Your task to perform on an android device: open app "Facebook Lite" (install if not already installed) Image 0: 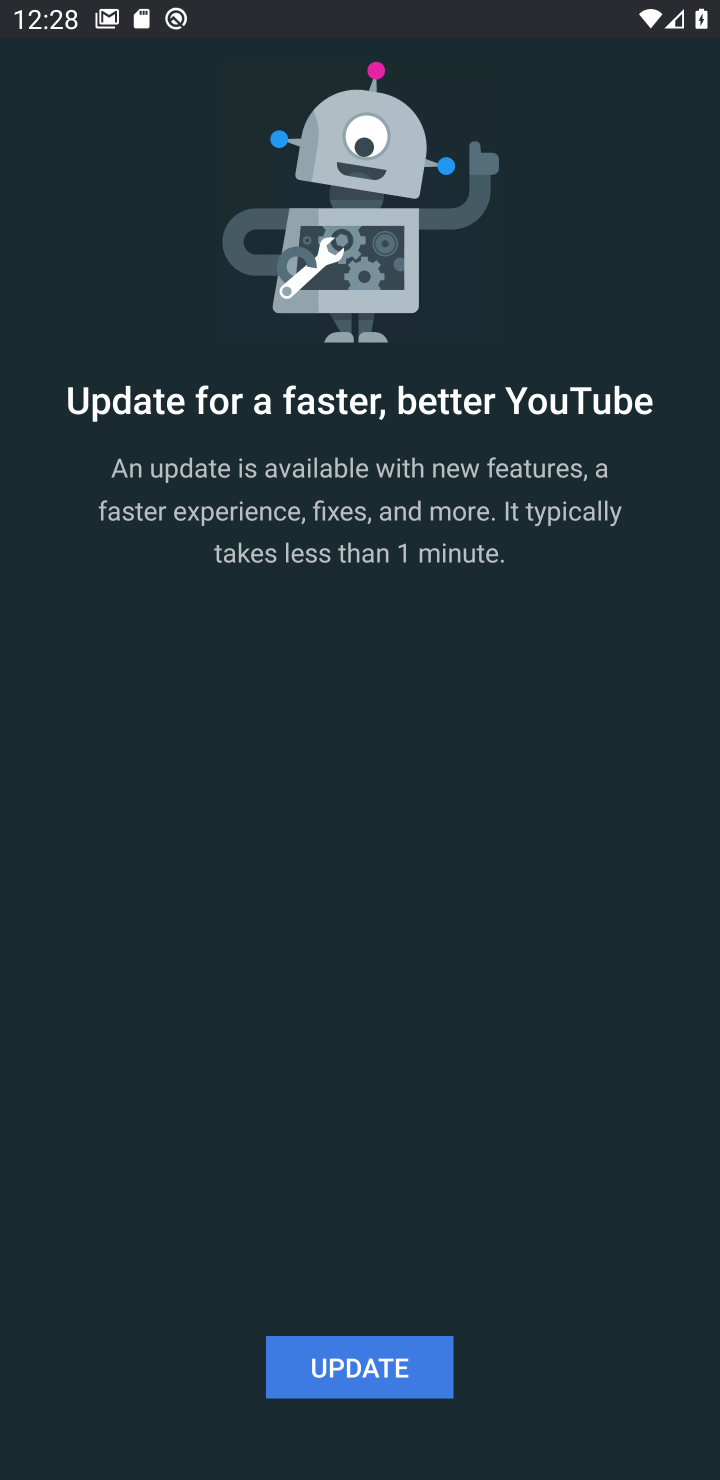
Step 0: press home button
Your task to perform on an android device: open app "Facebook Lite" (install if not already installed) Image 1: 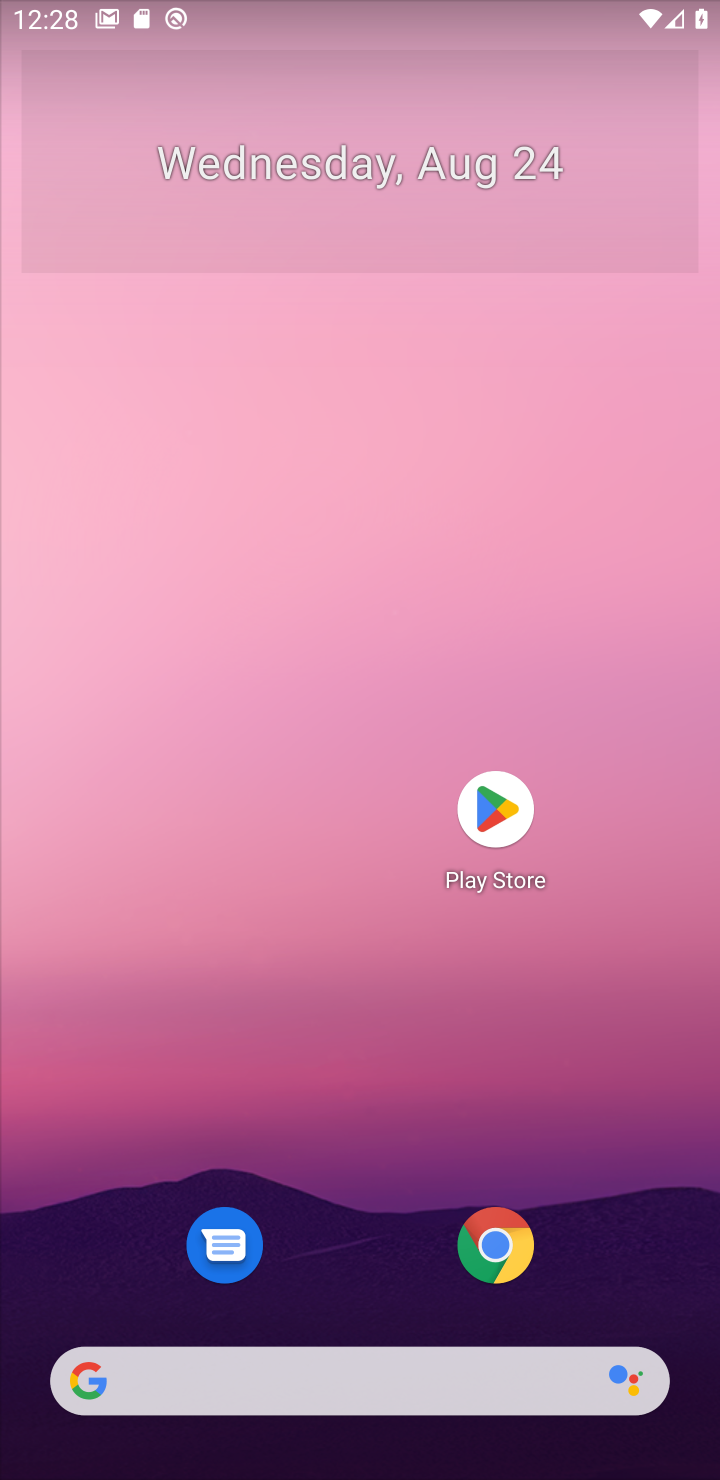
Step 1: click (492, 800)
Your task to perform on an android device: open app "Facebook Lite" (install if not already installed) Image 2: 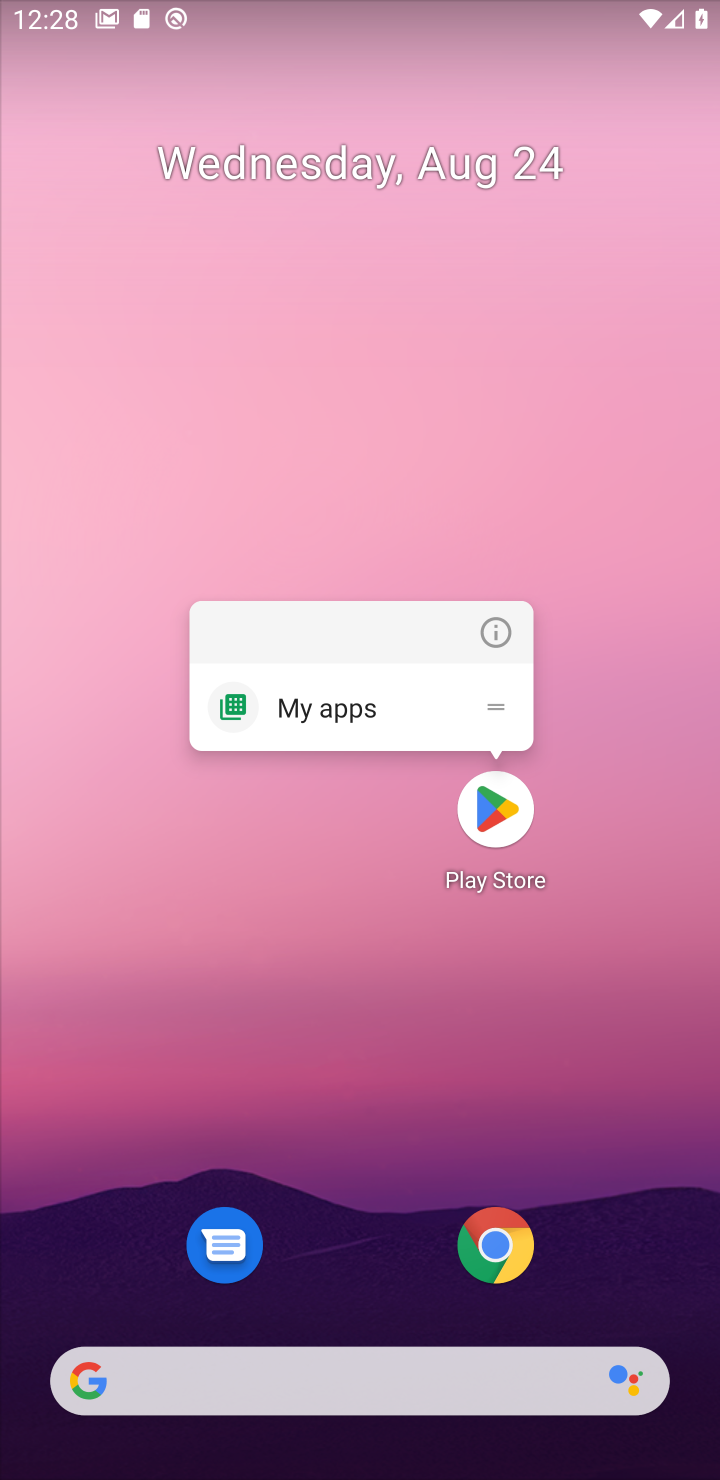
Step 2: click (490, 796)
Your task to perform on an android device: open app "Facebook Lite" (install if not already installed) Image 3: 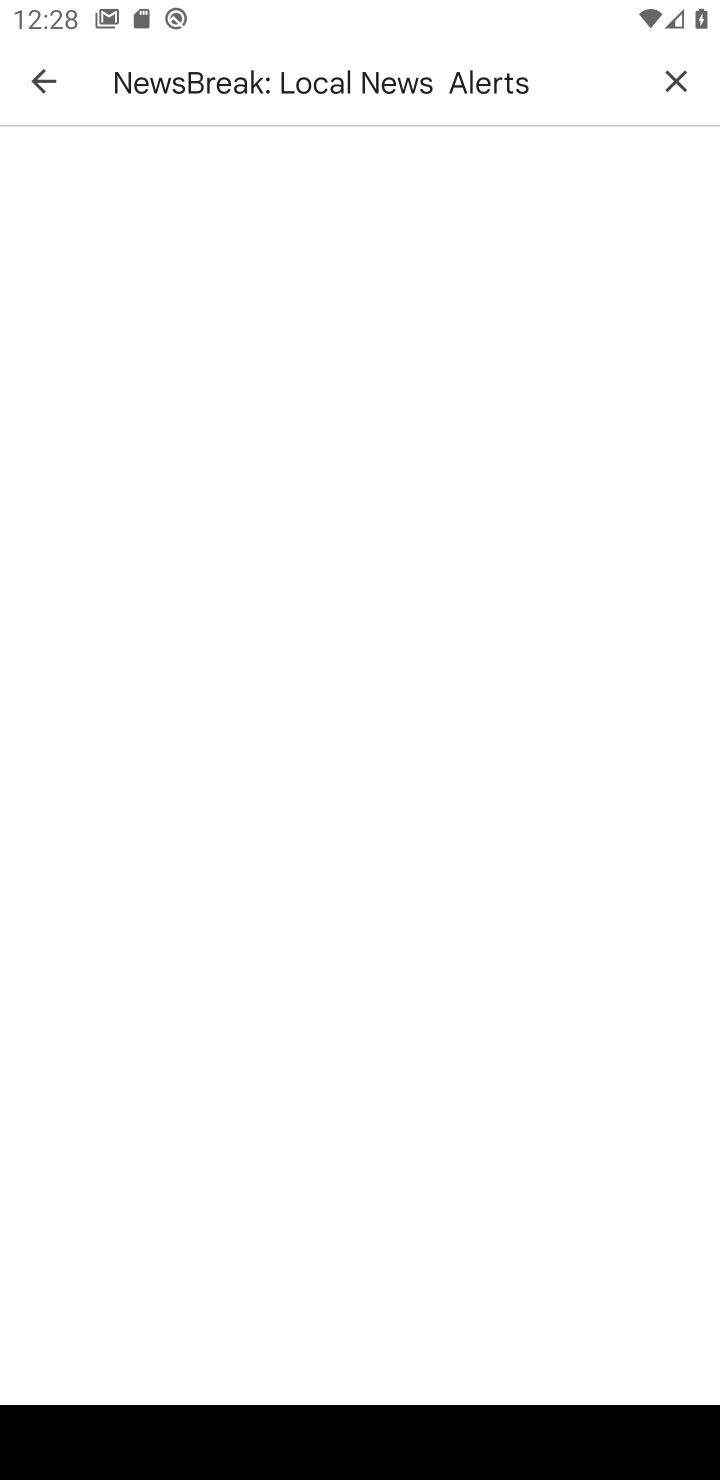
Step 3: click (677, 73)
Your task to perform on an android device: open app "Facebook Lite" (install if not already installed) Image 4: 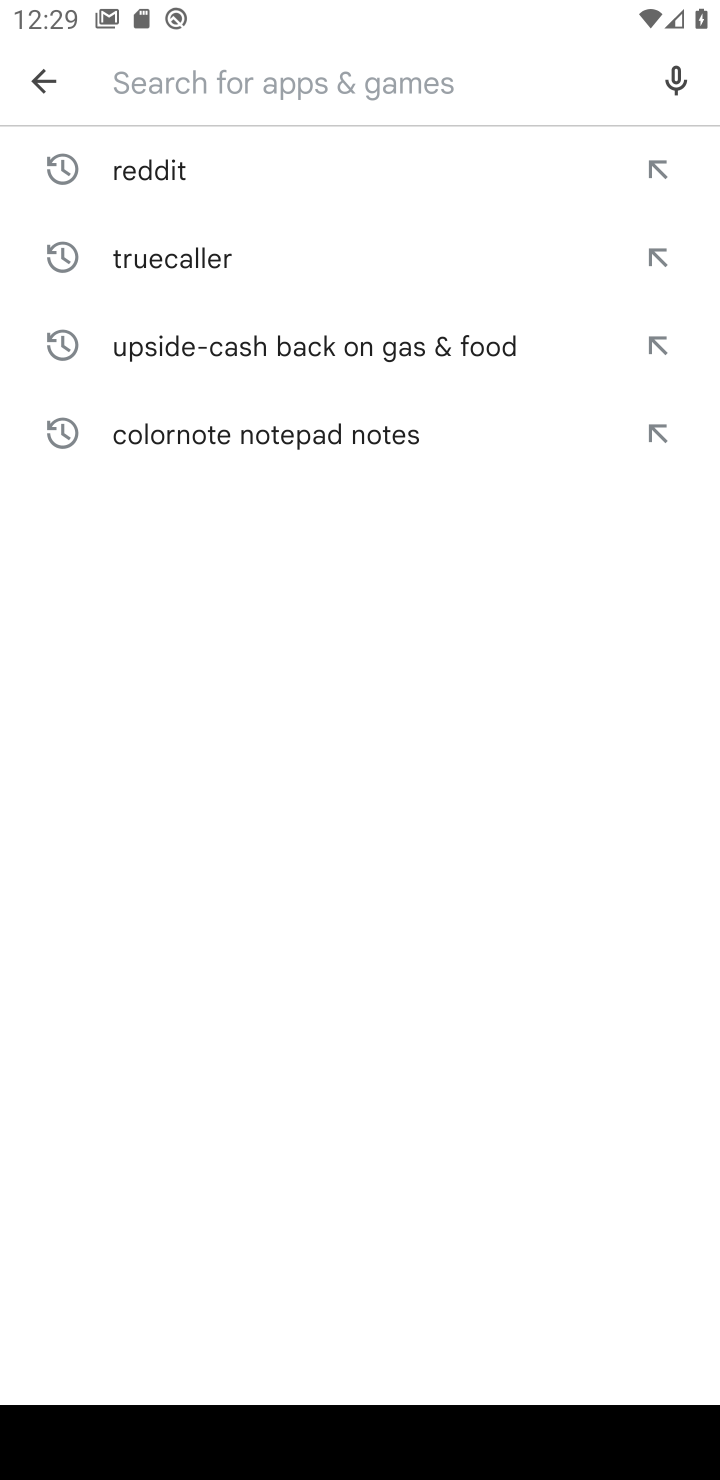
Step 4: type "Facebook Lite"
Your task to perform on an android device: open app "Facebook Lite" (install if not already installed) Image 5: 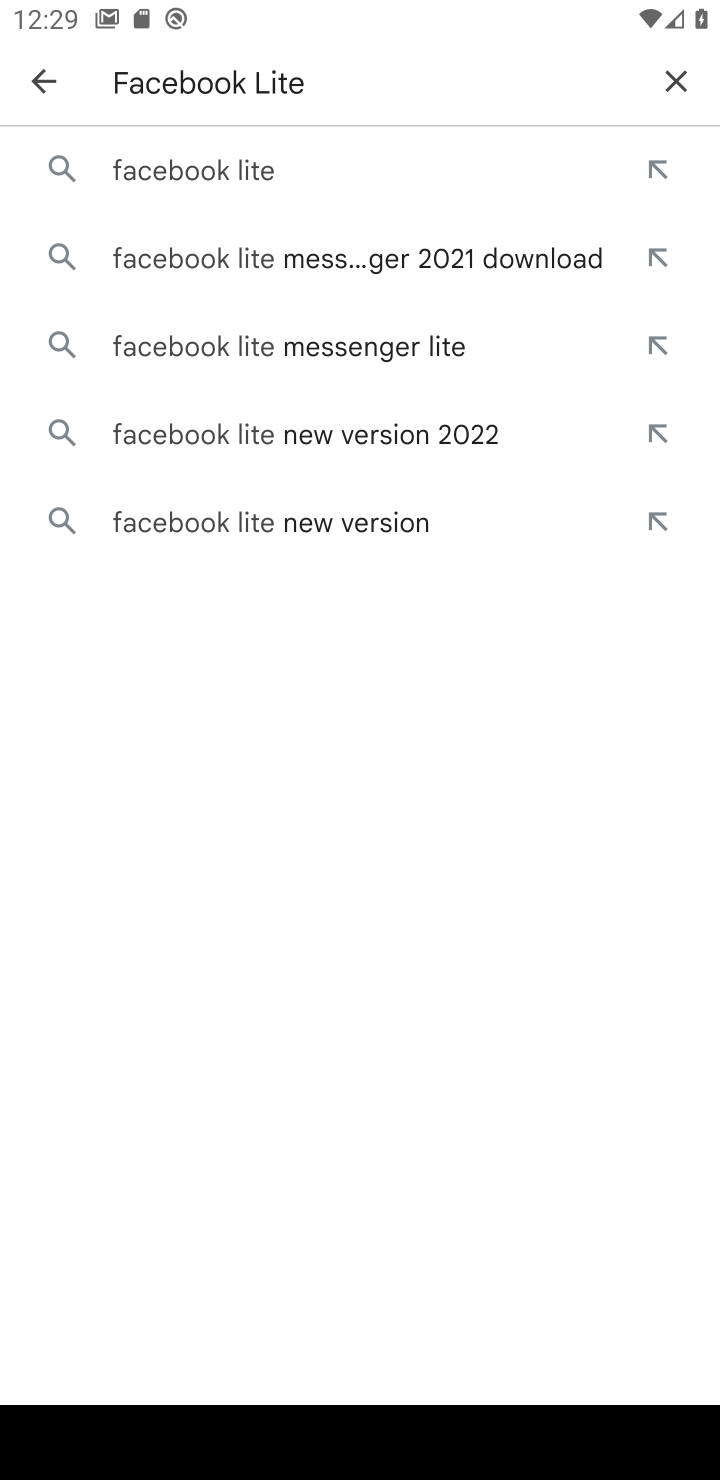
Step 5: click (252, 153)
Your task to perform on an android device: open app "Facebook Lite" (install if not already installed) Image 6: 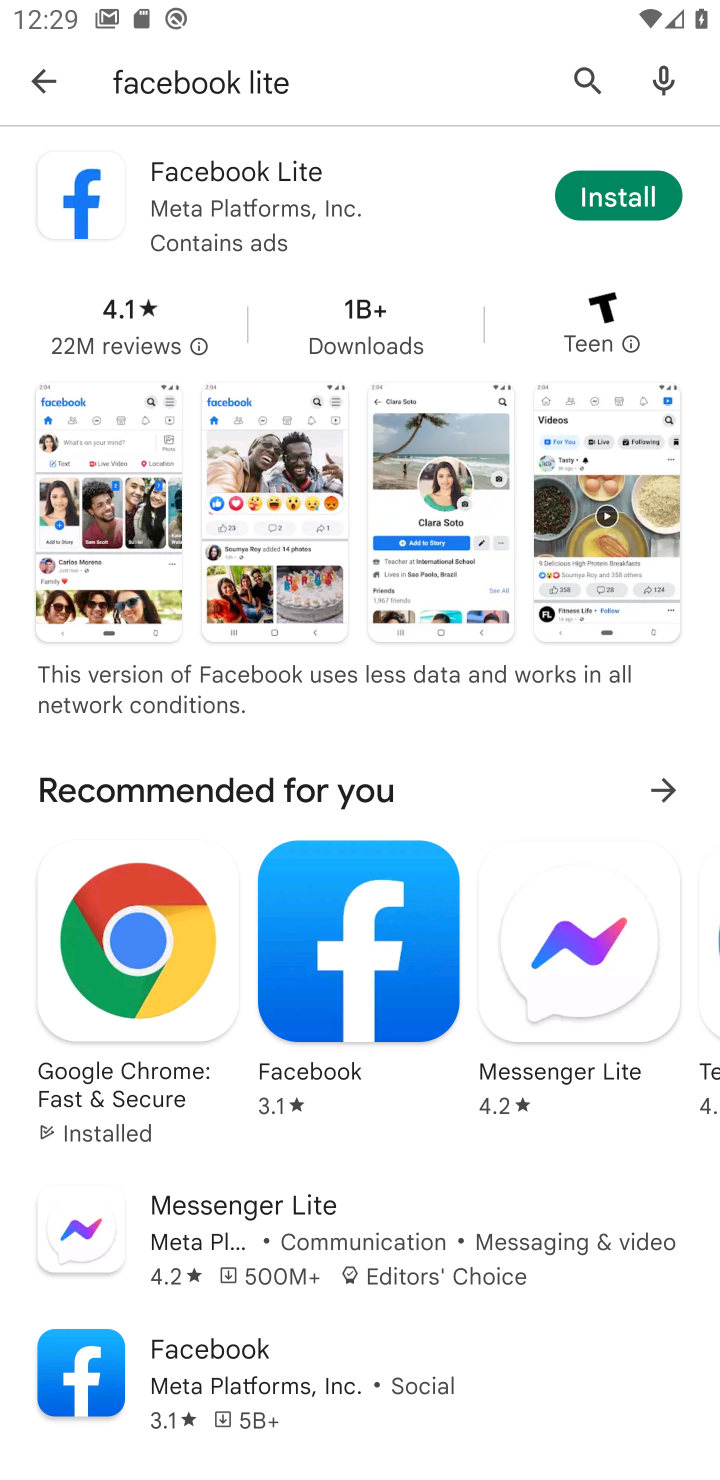
Step 6: click (649, 188)
Your task to perform on an android device: open app "Facebook Lite" (install if not already installed) Image 7: 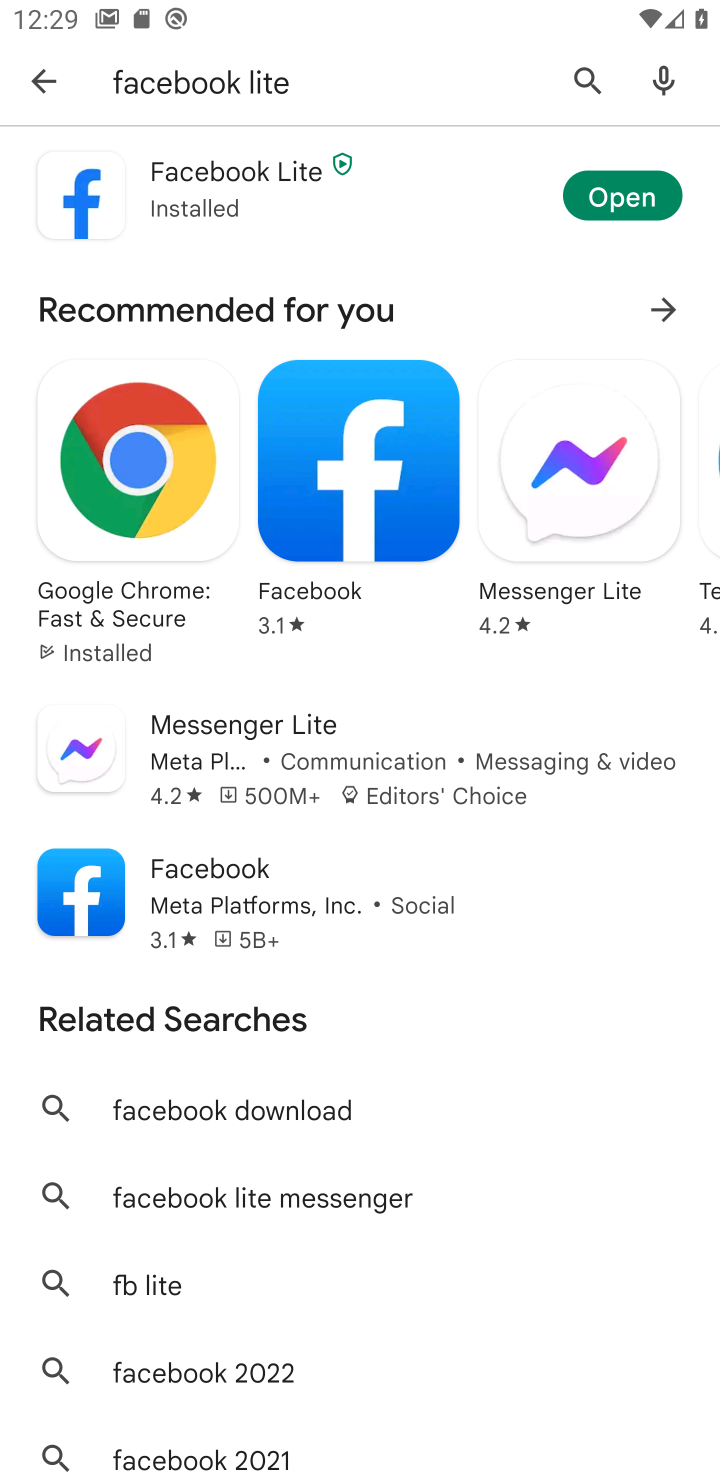
Step 7: click (631, 193)
Your task to perform on an android device: open app "Facebook Lite" (install if not already installed) Image 8: 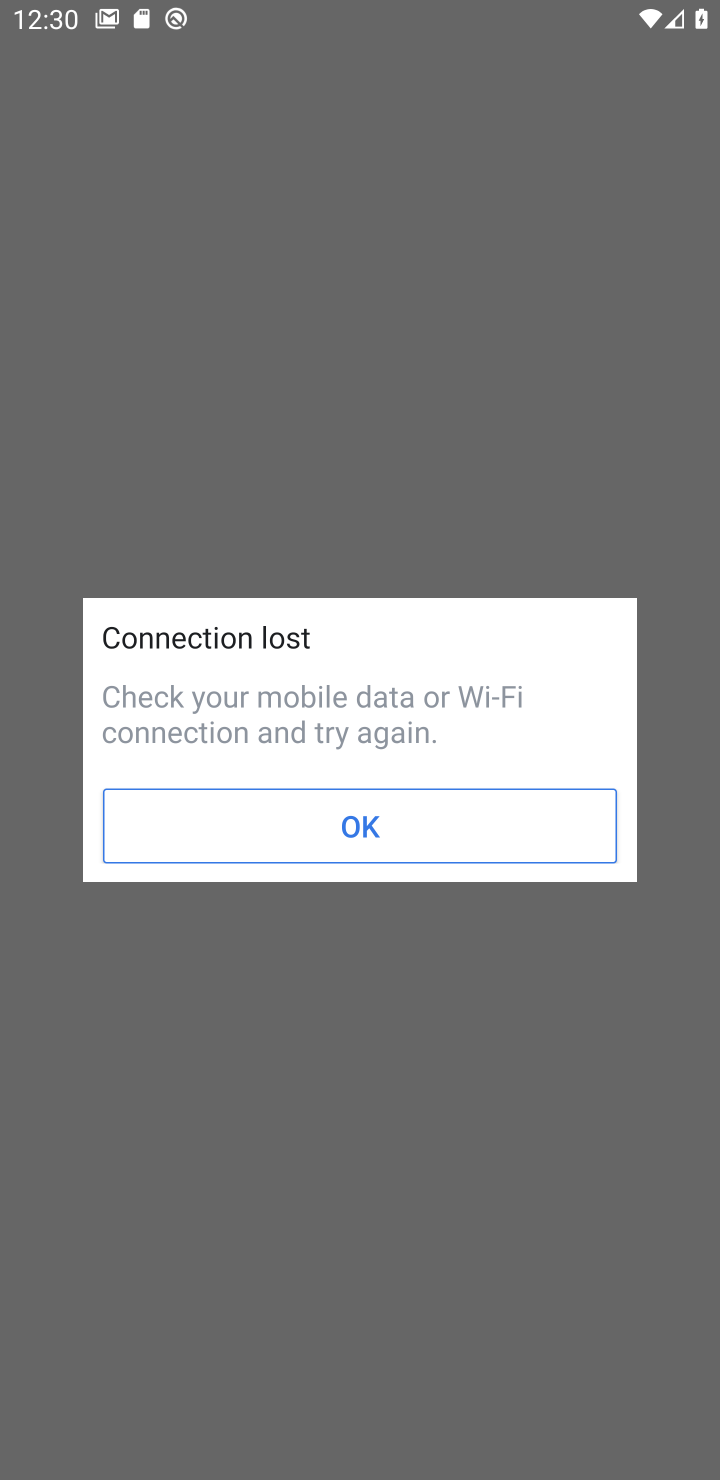
Step 8: task complete